Your task to perform on an android device: What is the recent news? Image 0: 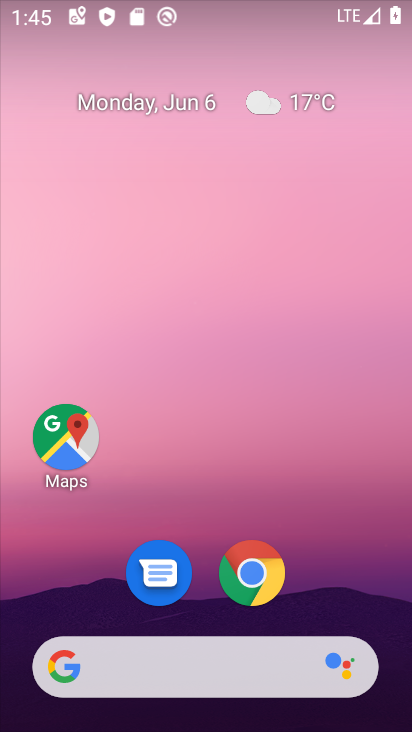
Step 0: press home button
Your task to perform on an android device: What is the recent news? Image 1: 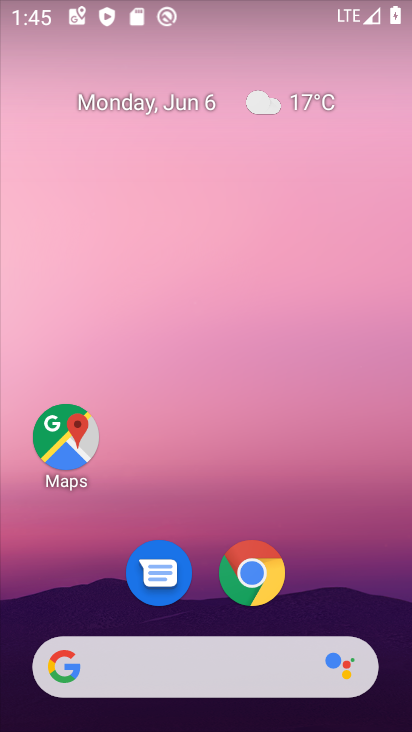
Step 1: task complete